Your task to perform on an android device: Play the last video I watched on Youtube Image 0: 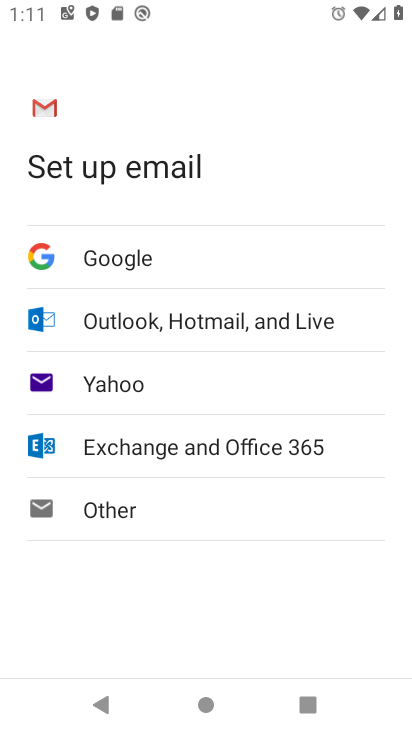
Step 0: press home button
Your task to perform on an android device: Play the last video I watched on Youtube Image 1: 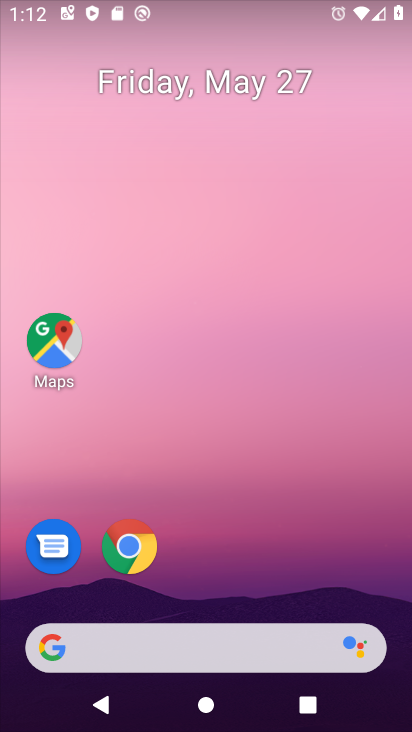
Step 1: drag from (221, 684) to (305, 181)
Your task to perform on an android device: Play the last video I watched on Youtube Image 2: 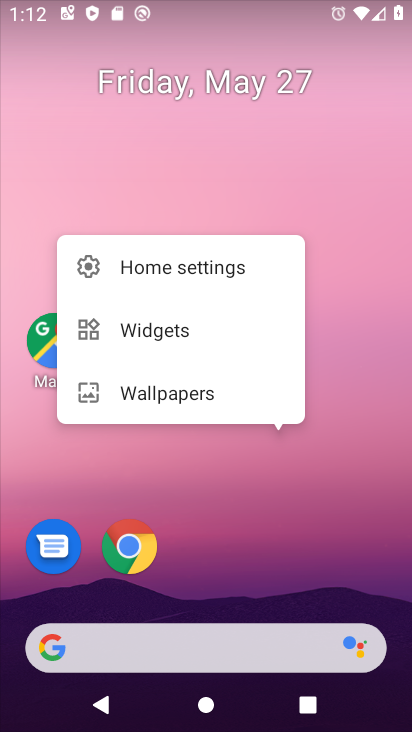
Step 2: click (350, 499)
Your task to perform on an android device: Play the last video I watched on Youtube Image 3: 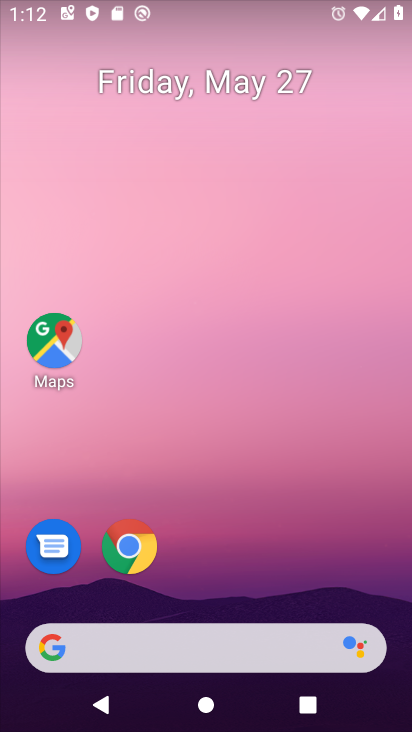
Step 3: drag from (262, 675) to (178, 142)
Your task to perform on an android device: Play the last video I watched on Youtube Image 4: 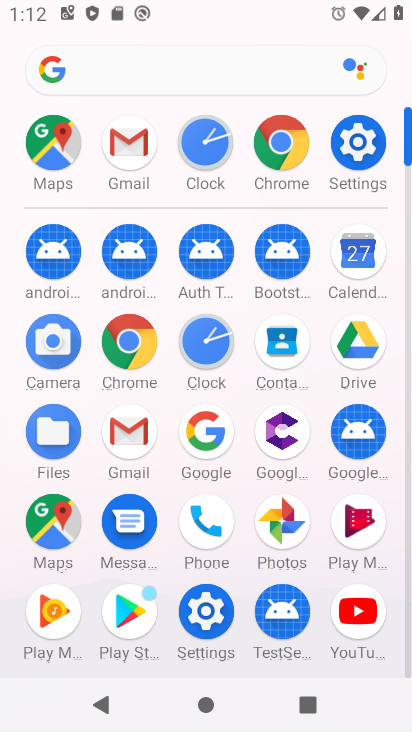
Step 4: click (360, 604)
Your task to perform on an android device: Play the last video I watched on Youtube Image 5: 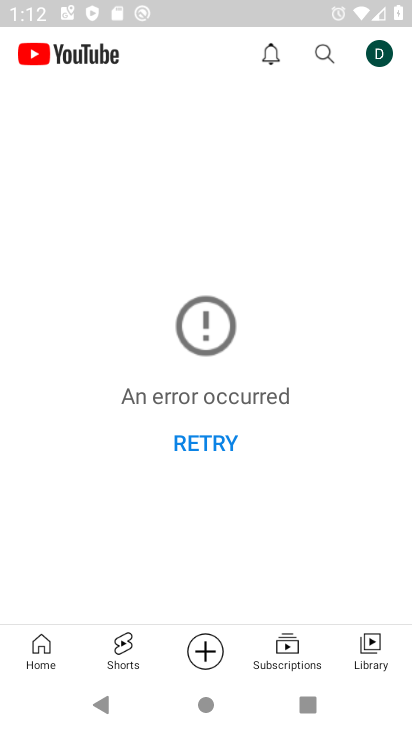
Step 5: click (366, 653)
Your task to perform on an android device: Play the last video I watched on Youtube Image 6: 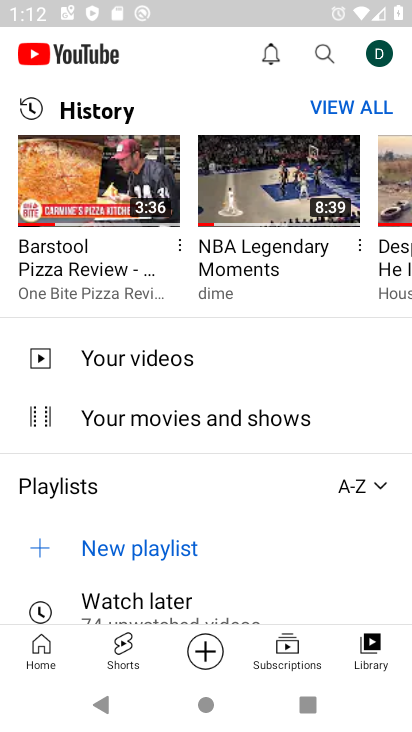
Step 6: click (113, 198)
Your task to perform on an android device: Play the last video I watched on Youtube Image 7: 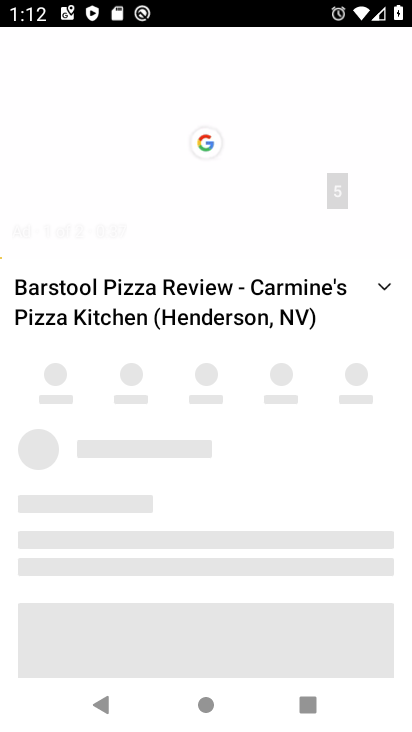
Step 7: task complete